Your task to perform on an android device: find photos in the google photos app Image 0: 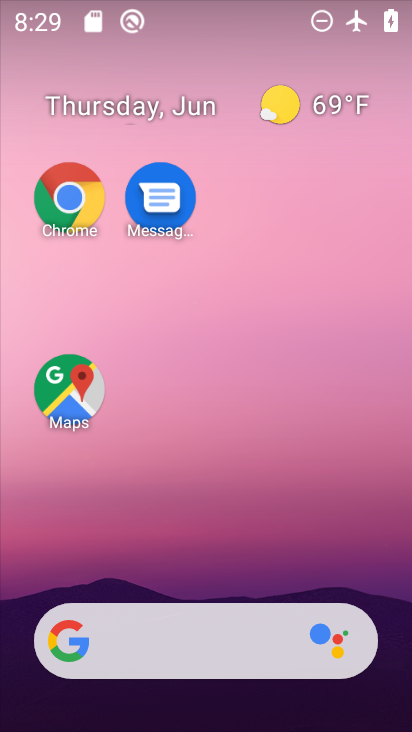
Step 0: drag from (220, 578) to (164, 132)
Your task to perform on an android device: find photos in the google photos app Image 1: 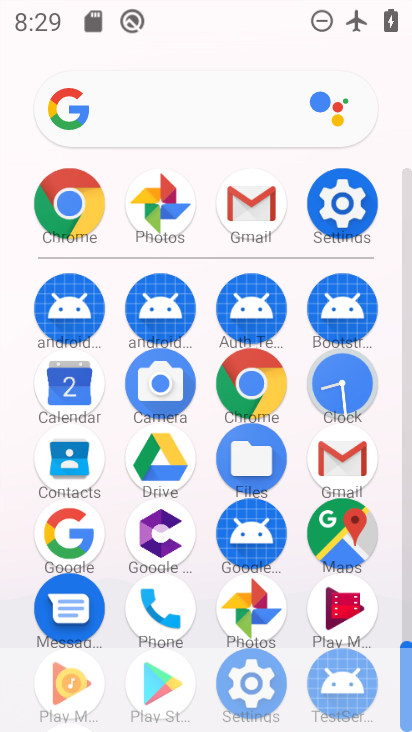
Step 1: click (257, 625)
Your task to perform on an android device: find photos in the google photos app Image 2: 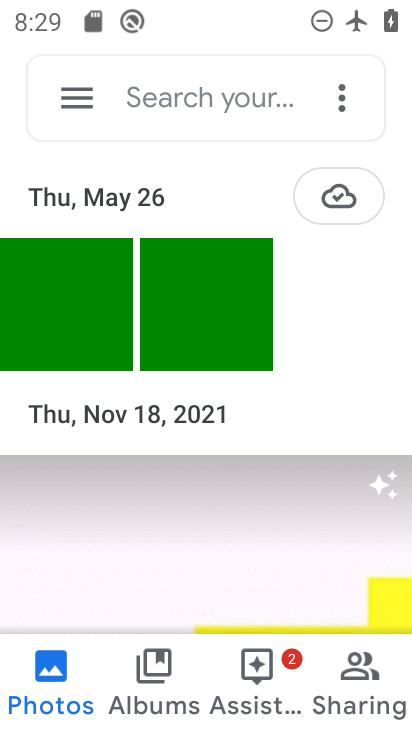
Step 2: task complete